Your task to perform on an android device: Go to privacy settings Image 0: 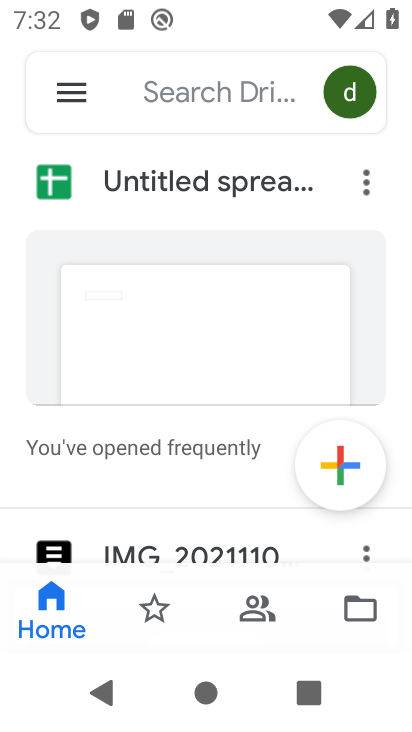
Step 0: press home button
Your task to perform on an android device: Go to privacy settings Image 1: 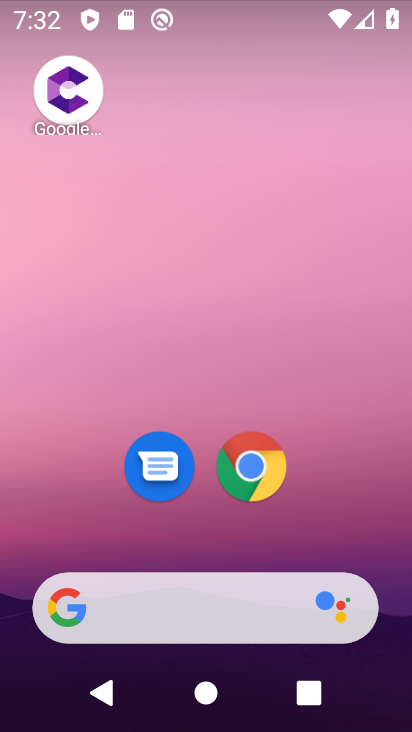
Step 1: drag from (342, 437) to (345, 187)
Your task to perform on an android device: Go to privacy settings Image 2: 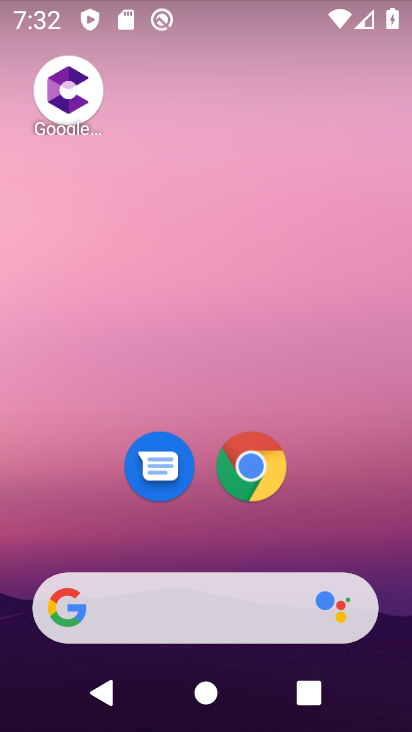
Step 2: drag from (316, 561) to (274, 174)
Your task to perform on an android device: Go to privacy settings Image 3: 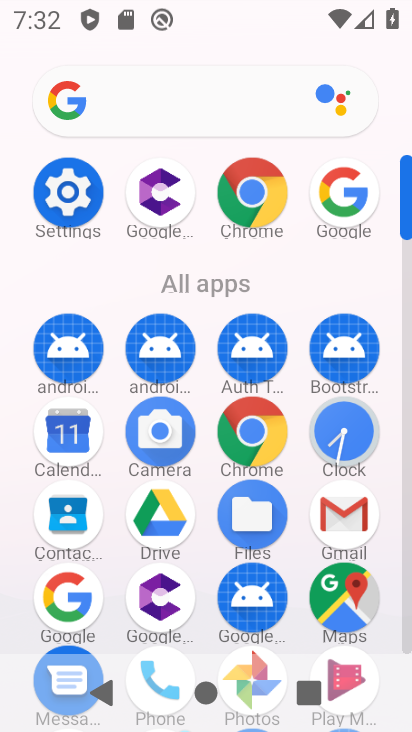
Step 3: click (56, 187)
Your task to perform on an android device: Go to privacy settings Image 4: 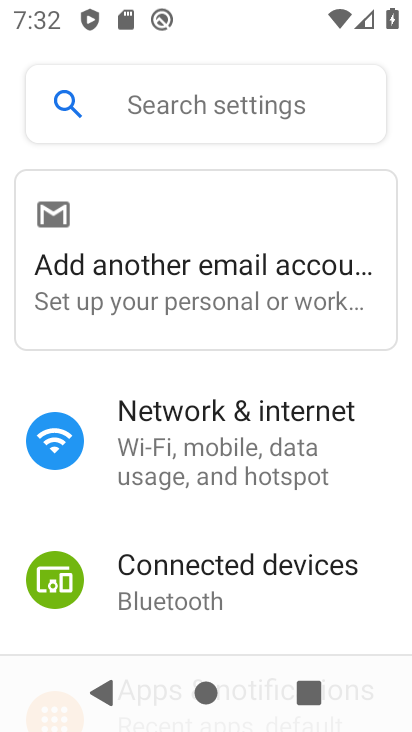
Step 4: drag from (158, 609) to (195, 99)
Your task to perform on an android device: Go to privacy settings Image 5: 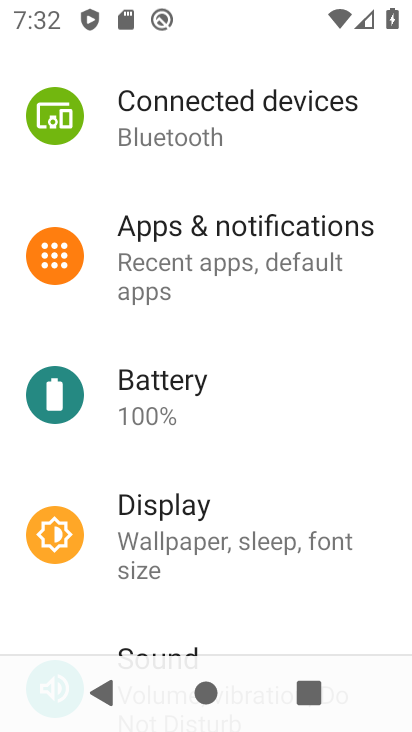
Step 5: drag from (171, 583) to (196, 157)
Your task to perform on an android device: Go to privacy settings Image 6: 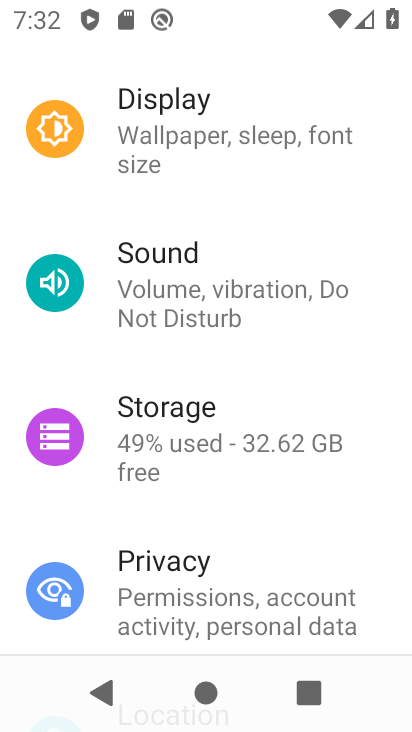
Step 6: click (185, 586)
Your task to perform on an android device: Go to privacy settings Image 7: 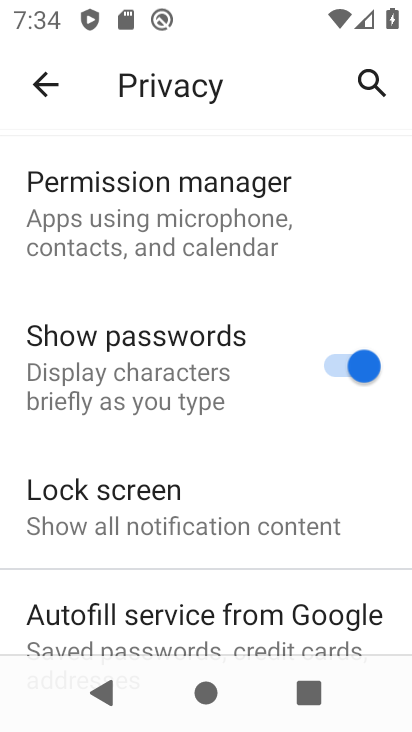
Step 7: task complete